Your task to perform on an android device: toggle translation in the chrome app Image 0: 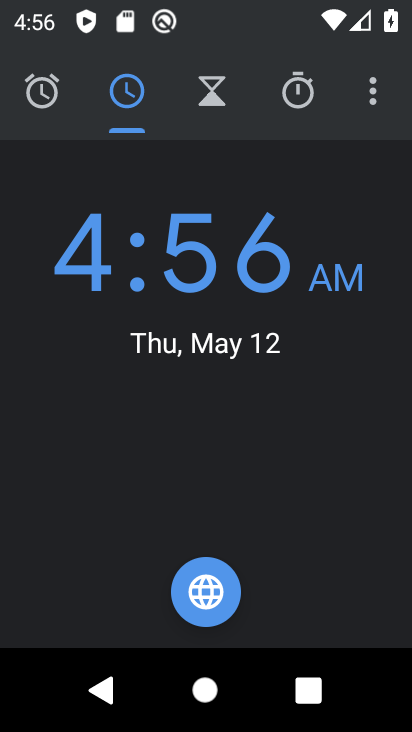
Step 0: press home button
Your task to perform on an android device: toggle translation in the chrome app Image 1: 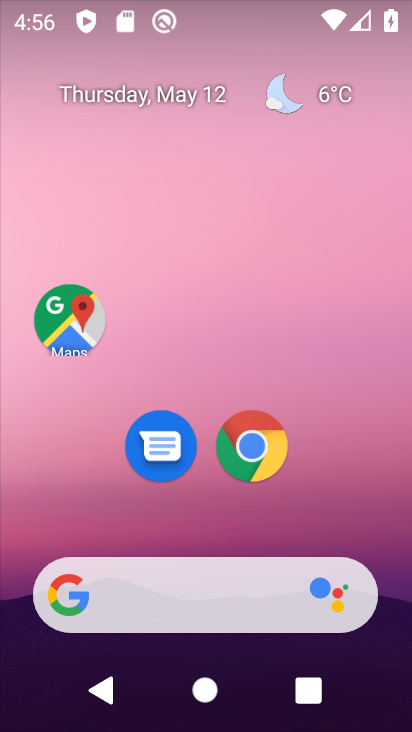
Step 1: drag from (296, 481) to (346, 125)
Your task to perform on an android device: toggle translation in the chrome app Image 2: 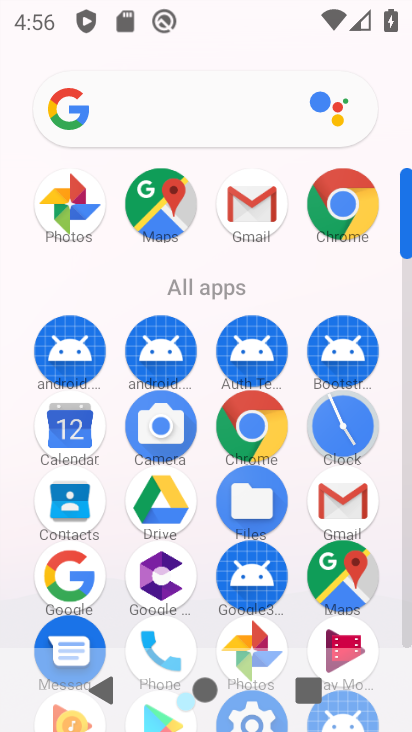
Step 2: click (335, 212)
Your task to perform on an android device: toggle translation in the chrome app Image 3: 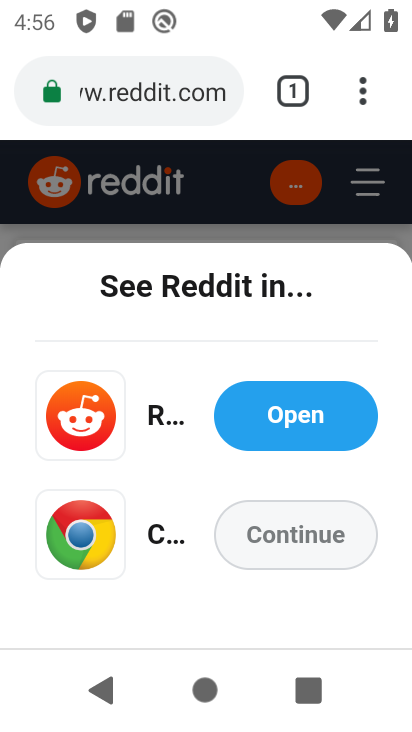
Step 3: drag from (362, 98) to (188, 481)
Your task to perform on an android device: toggle translation in the chrome app Image 4: 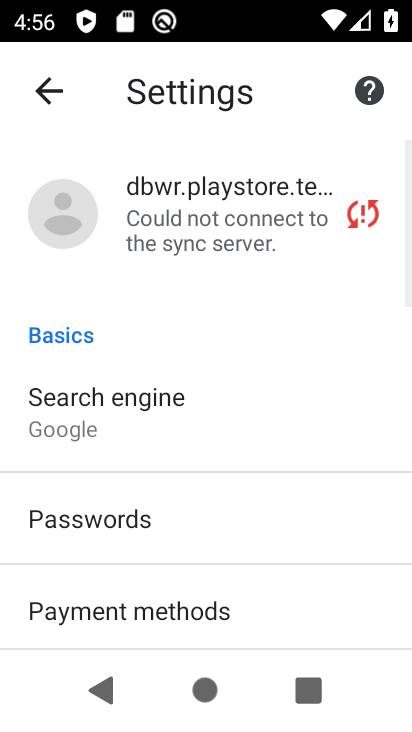
Step 4: drag from (267, 535) to (285, 195)
Your task to perform on an android device: toggle translation in the chrome app Image 5: 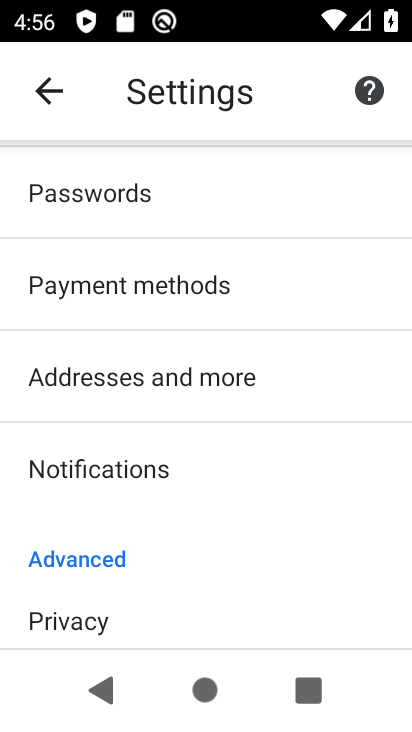
Step 5: drag from (234, 541) to (251, 226)
Your task to perform on an android device: toggle translation in the chrome app Image 6: 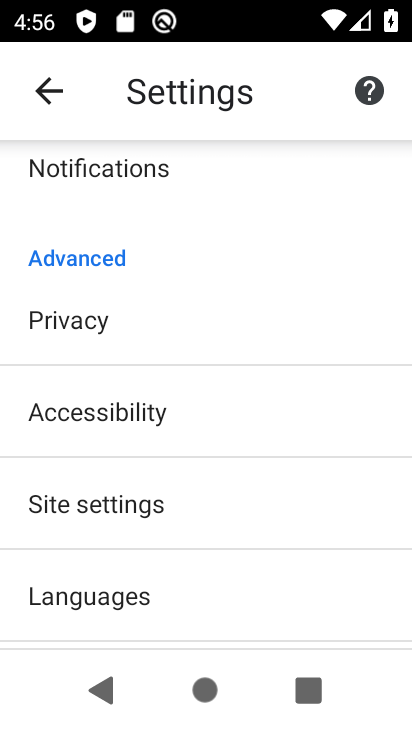
Step 6: click (124, 592)
Your task to perform on an android device: toggle translation in the chrome app Image 7: 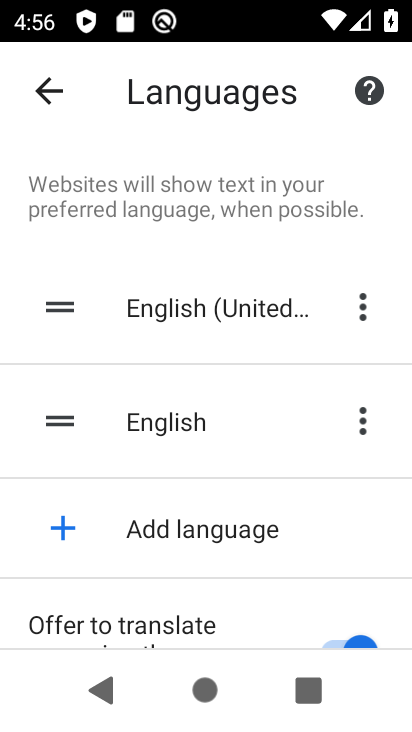
Step 7: drag from (341, 566) to (346, 240)
Your task to perform on an android device: toggle translation in the chrome app Image 8: 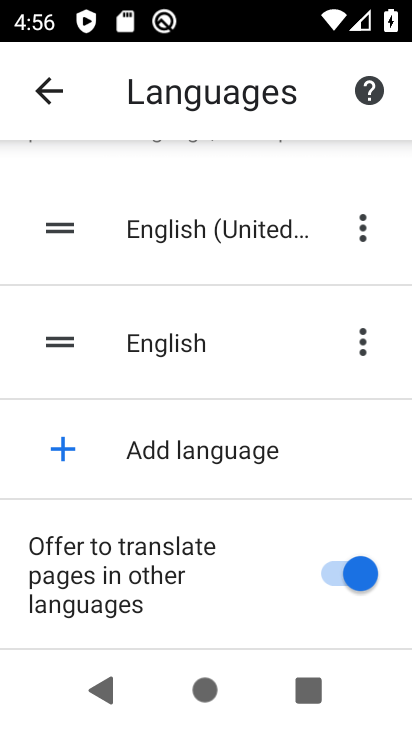
Step 8: click (338, 575)
Your task to perform on an android device: toggle translation in the chrome app Image 9: 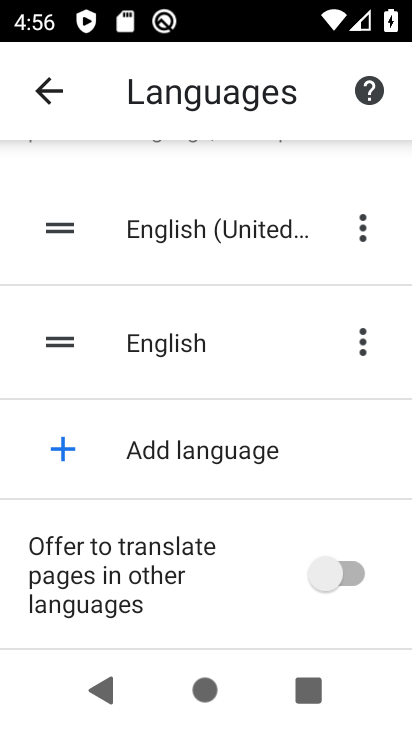
Step 9: task complete